Your task to perform on an android device: Go to sound settings Image 0: 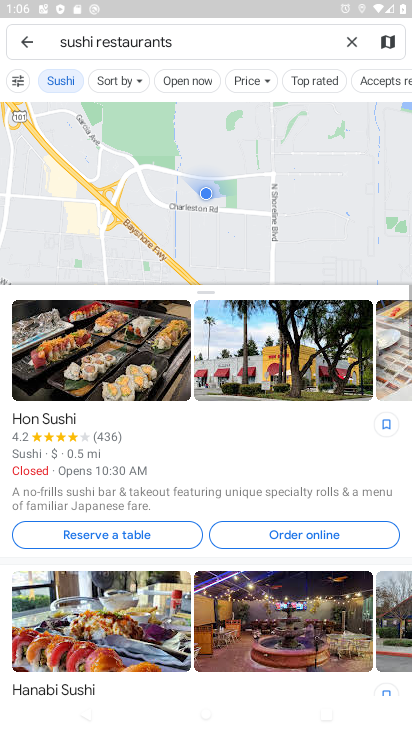
Step 0: press home button
Your task to perform on an android device: Go to sound settings Image 1: 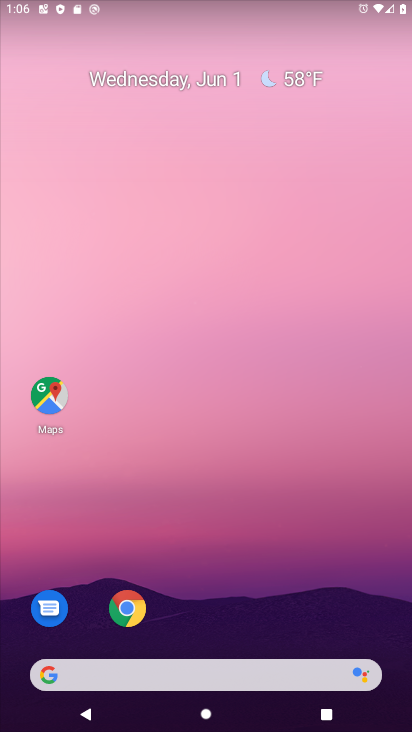
Step 1: drag from (216, 429) to (220, 225)
Your task to perform on an android device: Go to sound settings Image 2: 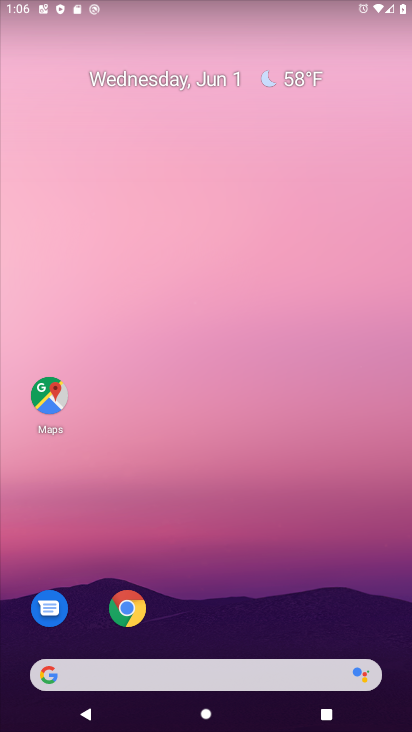
Step 2: drag from (249, 596) to (281, 46)
Your task to perform on an android device: Go to sound settings Image 3: 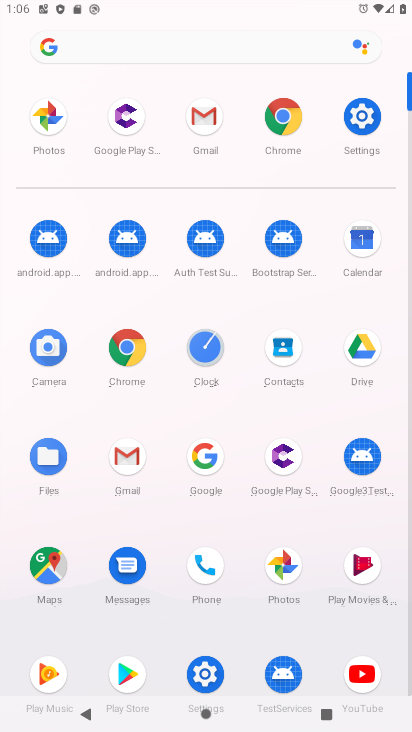
Step 3: click (364, 120)
Your task to perform on an android device: Go to sound settings Image 4: 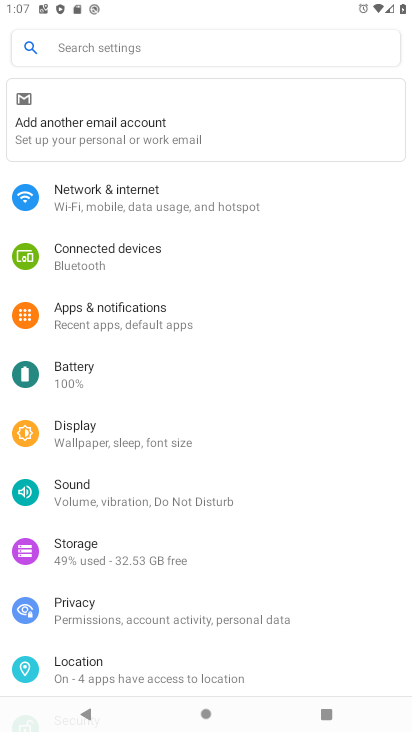
Step 4: click (127, 490)
Your task to perform on an android device: Go to sound settings Image 5: 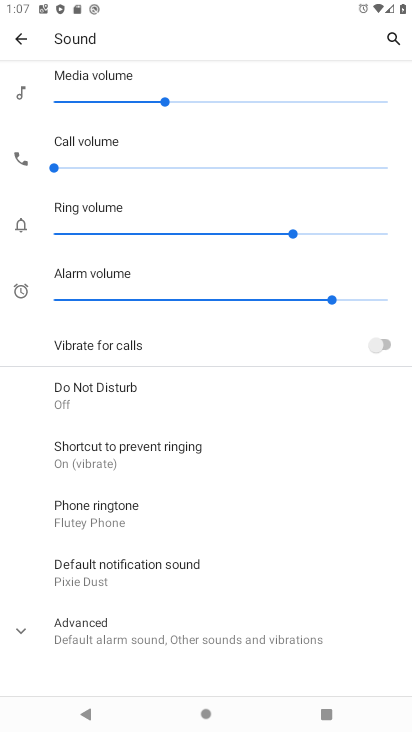
Step 5: click (154, 615)
Your task to perform on an android device: Go to sound settings Image 6: 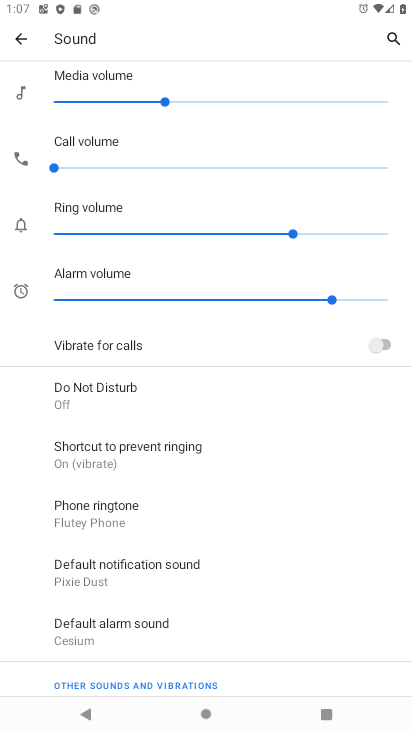
Step 6: task complete